Your task to perform on an android device: turn on data saver in the chrome app Image 0: 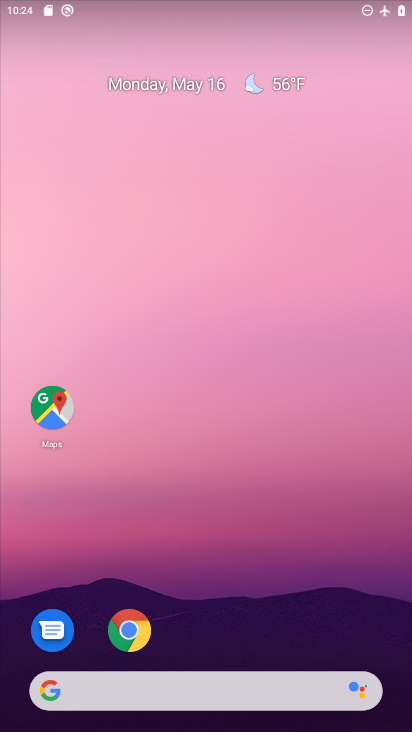
Step 0: click (133, 625)
Your task to perform on an android device: turn on data saver in the chrome app Image 1: 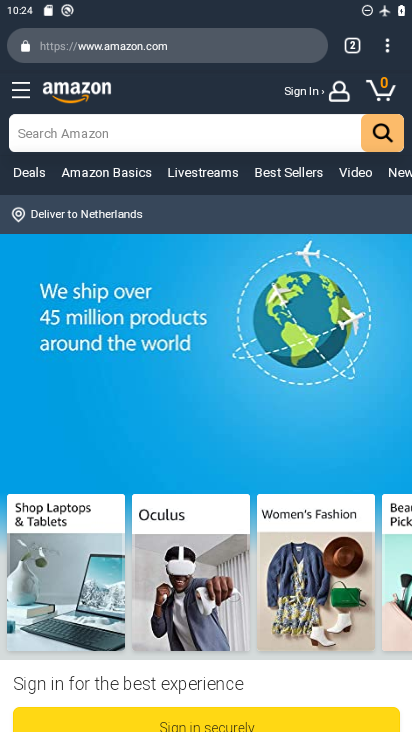
Step 1: click (392, 54)
Your task to perform on an android device: turn on data saver in the chrome app Image 2: 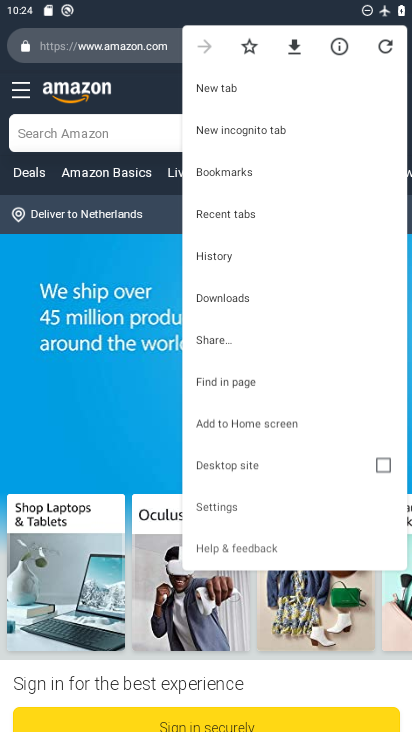
Step 2: click (390, 50)
Your task to perform on an android device: turn on data saver in the chrome app Image 3: 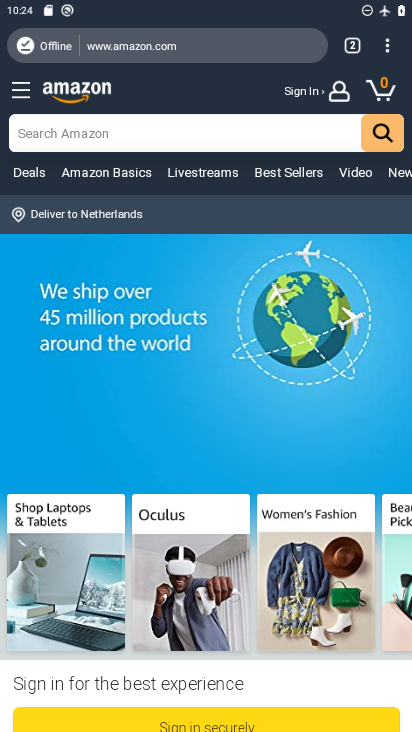
Step 3: click (389, 54)
Your task to perform on an android device: turn on data saver in the chrome app Image 4: 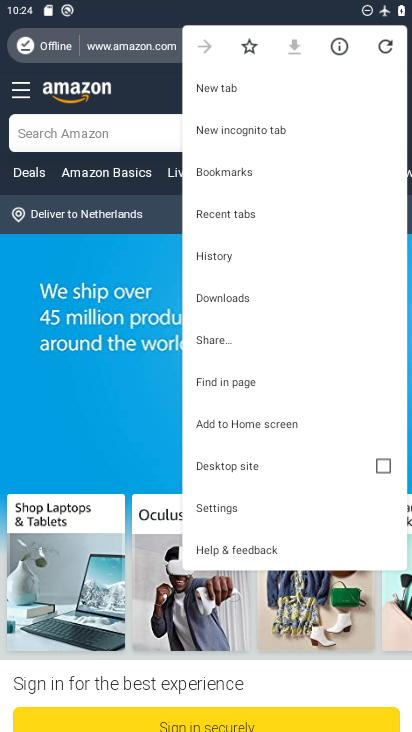
Step 4: click (223, 505)
Your task to perform on an android device: turn on data saver in the chrome app Image 5: 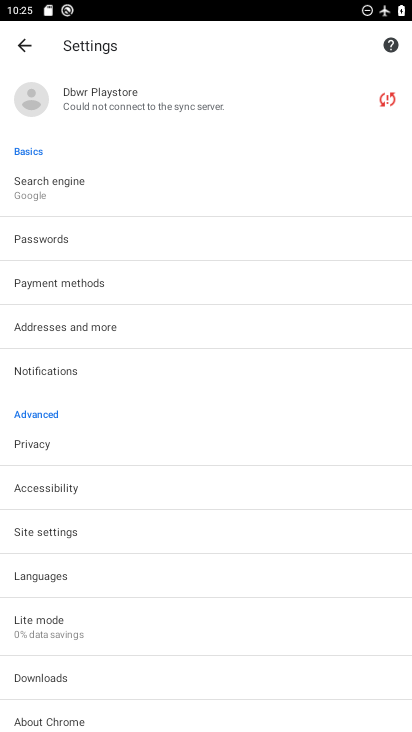
Step 5: click (61, 618)
Your task to perform on an android device: turn on data saver in the chrome app Image 6: 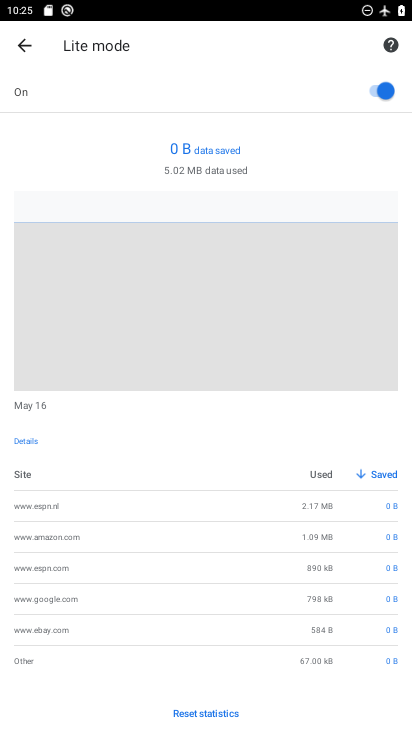
Step 6: task complete